Your task to perform on an android device: Go to privacy settings Image 0: 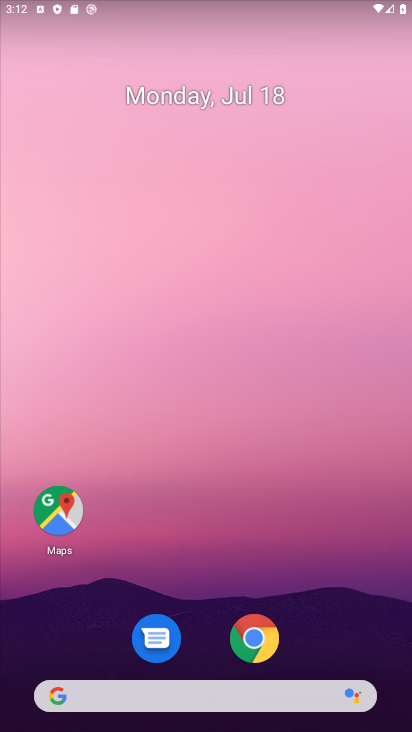
Step 0: drag from (339, 649) to (349, 168)
Your task to perform on an android device: Go to privacy settings Image 1: 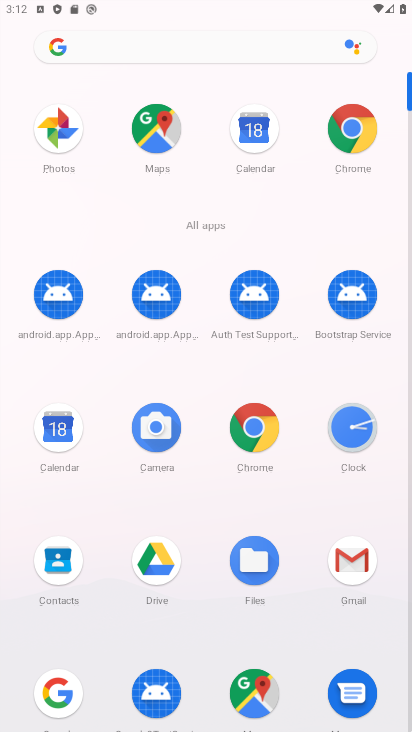
Step 1: drag from (209, 499) to (220, 148)
Your task to perform on an android device: Go to privacy settings Image 2: 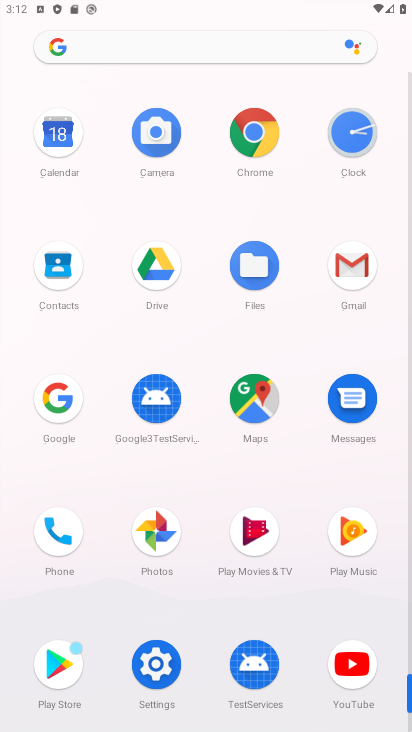
Step 2: click (149, 642)
Your task to perform on an android device: Go to privacy settings Image 3: 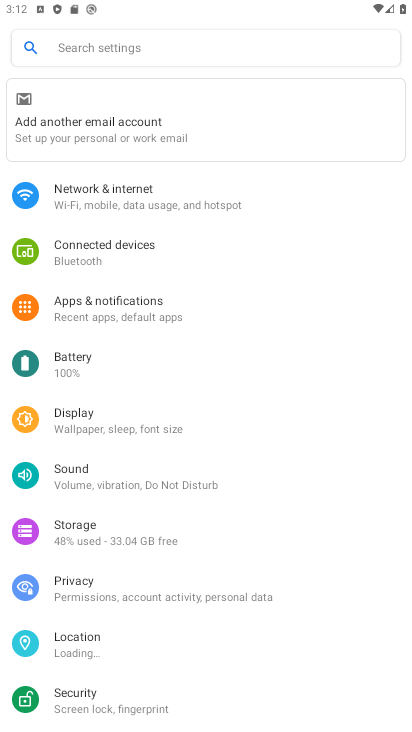
Step 3: click (151, 599)
Your task to perform on an android device: Go to privacy settings Image 4: 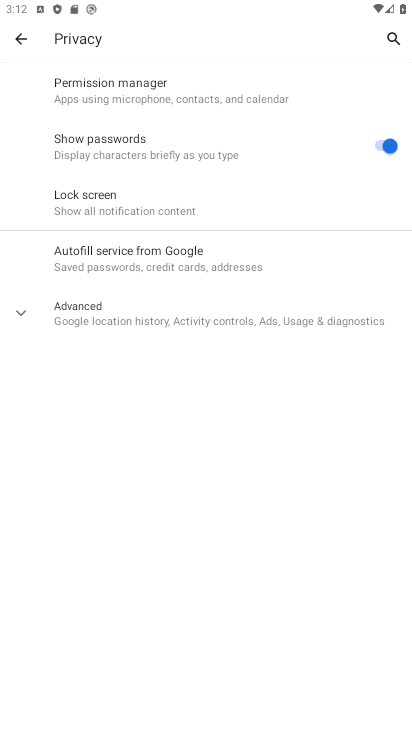
Step 4: task complete